Your task to perform on an android device: turn off location Image 0: 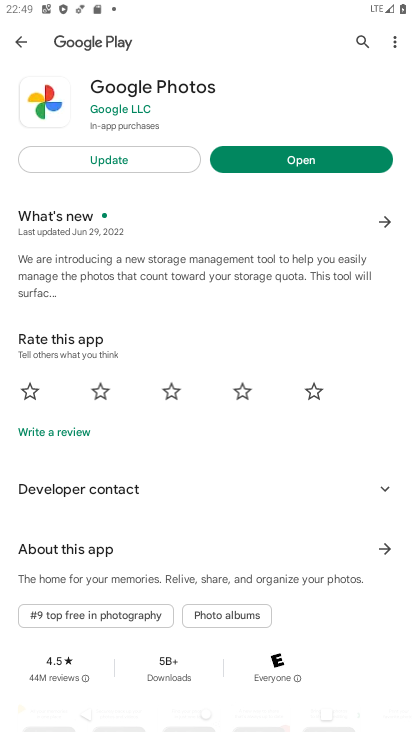
Step 0: press home button
Your task to perform on an android device: turn off location Image 1: 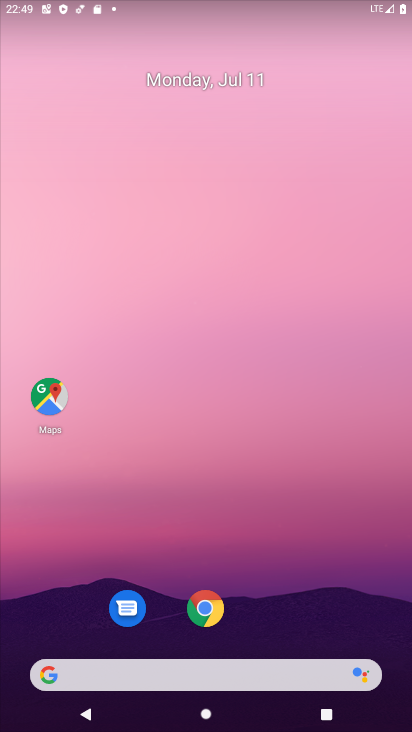
Step 1: drag from (64, 718) to (366, 226)
Your task to perform on an android device: turn off location Image 2: 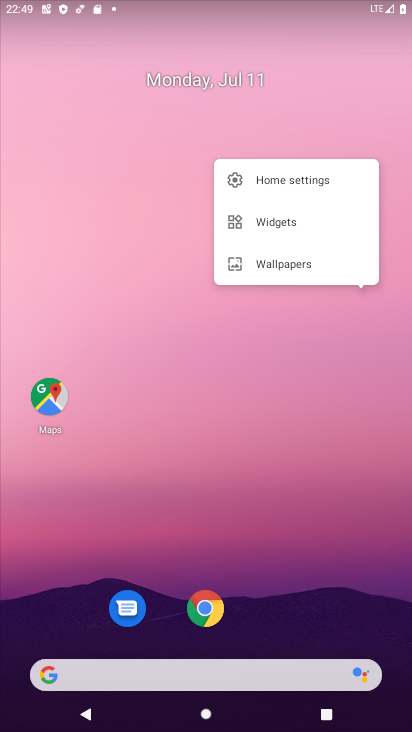
Step 2: drag from (123, 619) to (299, 23)
Your task to perform on an android device: turn off location Image 3: 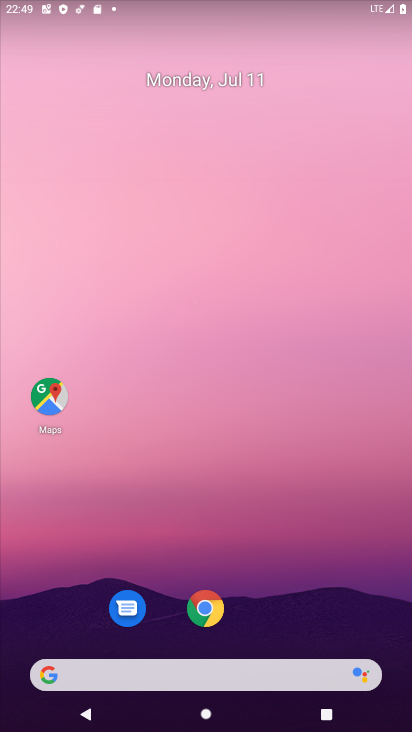
Step 3: drag from (34, 712) to (250, 36)
Your task to perform on an android device: turn off location Image 4: 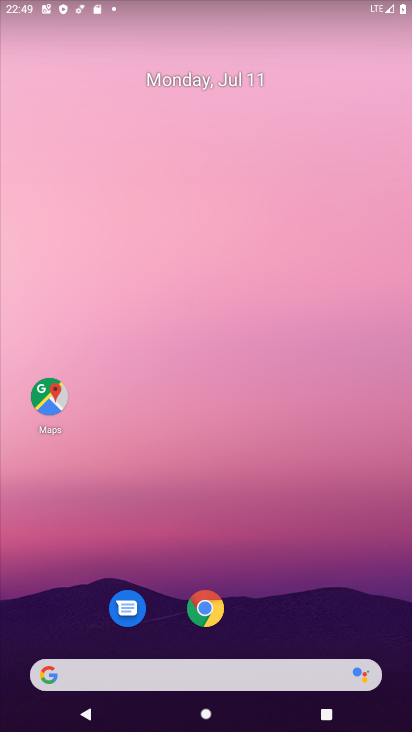
Step 4: drag from (100, 527) to (380, 15)
Your task to perform on an android device: turn off location Image 5: 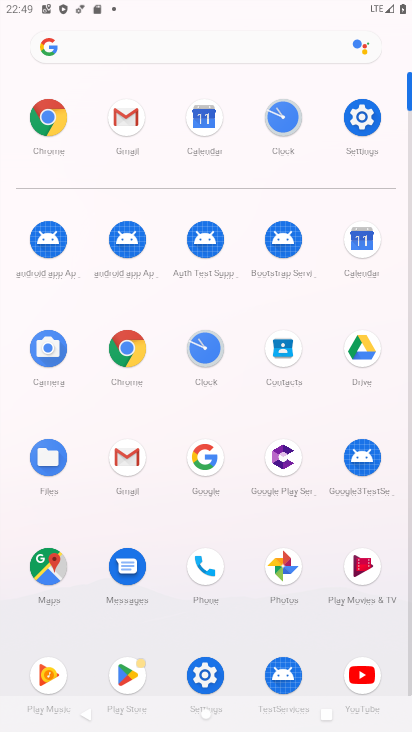
Step 5: click (200, 667)
Your task to perform on an android device: turn off location Image 6: 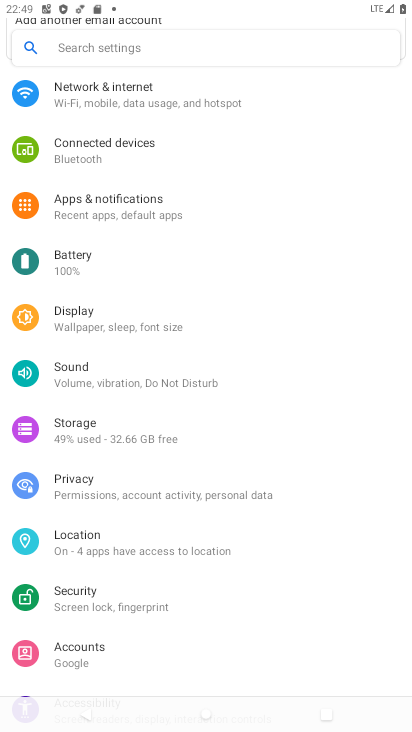
Step 6: click (119, 539)
Your task to perform on an android device: turn off location Image 7: 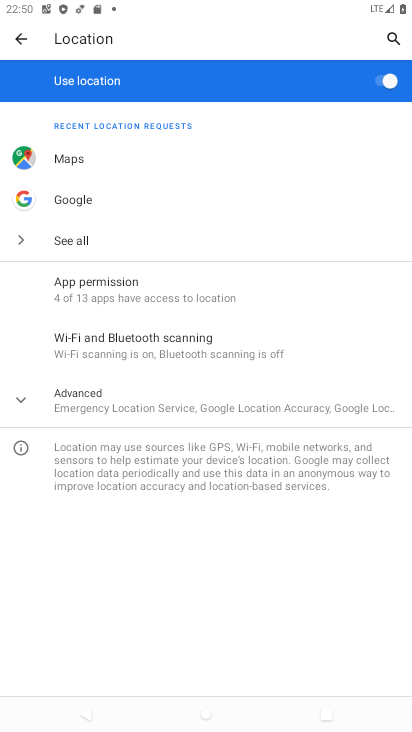
Step 7: task complete